Your task to perform on an android device: toggle translation in the chrome app Image 0: 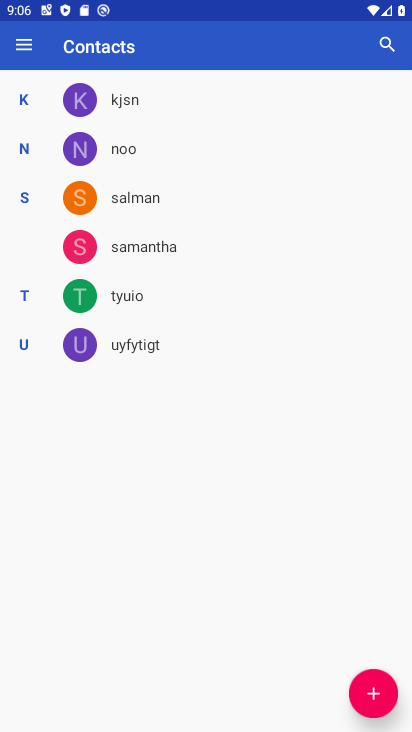
Step 0: press home button
Your task to perform on an android device: toggle translation in the chrome app Image 1: 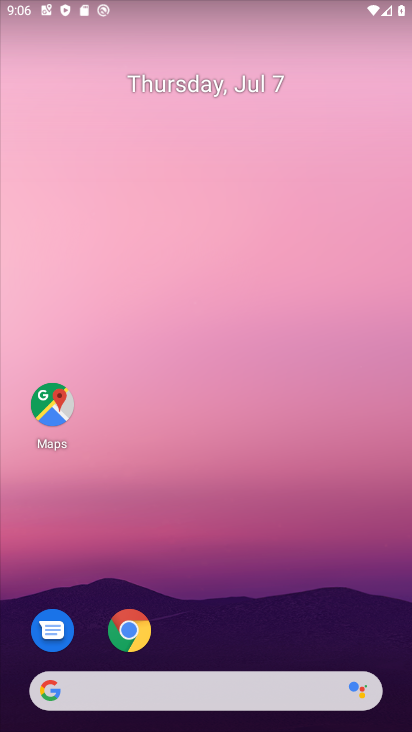
Step 1: drag from (218, 622) to (344, 62)
Your task to perform on an android device: toggle translation in the chrome app Image 2: 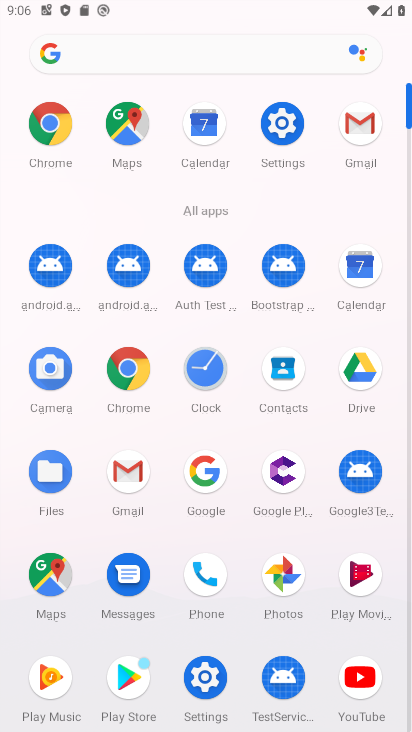
Step 2: click (125, 361)
Your task to perform on an android device: toggle translation in the chrome app Image 3: 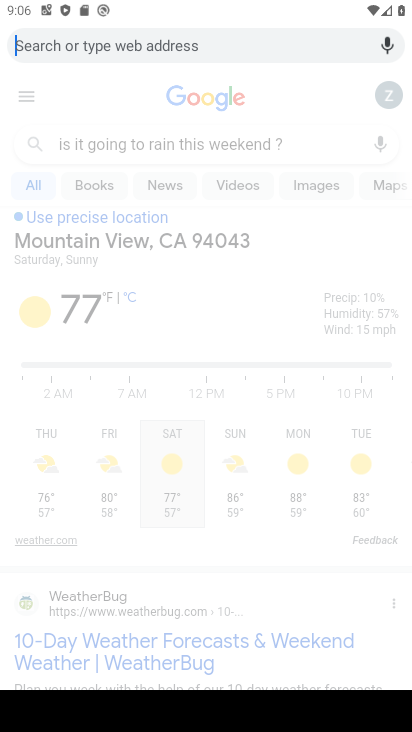
Step 3: press back button
Your task to perform on an android device: toggle translation in the chrome app Image 4: 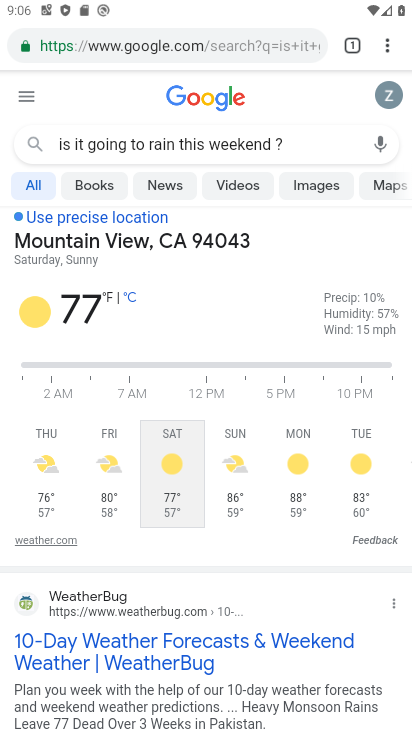
Step 4: drag from (386, 33) to (204, 505)
Your task to perform on an android device: toggle translation in the chrome app Image 5: 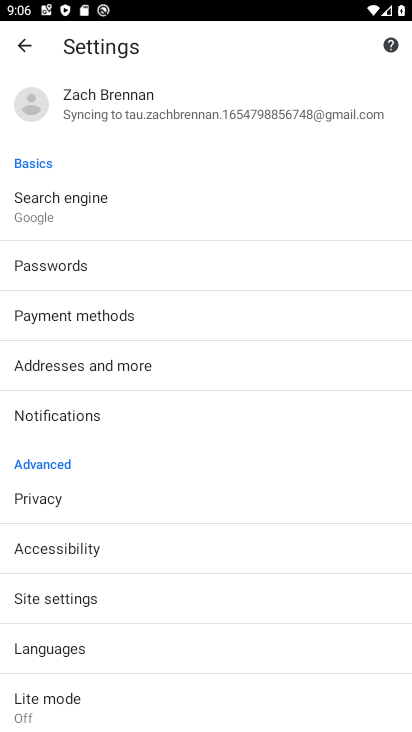
Step 5: click (48, 646)
Your task to perform on an android device: toggle translation in the chrome app Image 6: 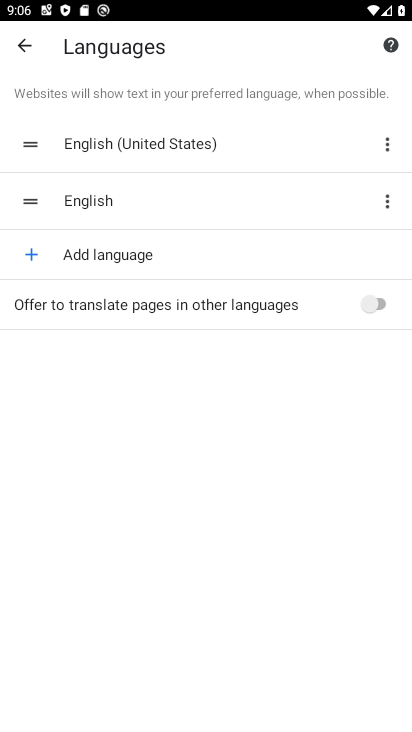
Step 6: click (381, 297)
Your task to perform on an android device: toggle translation in the chrome app Image 7: 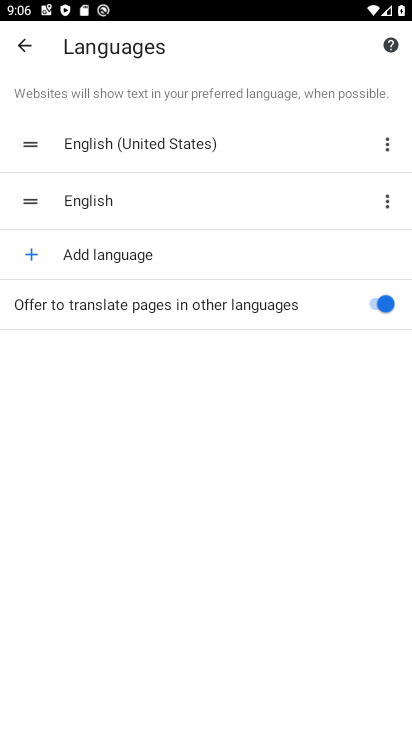
Step 7: task complete